Your task to perform on an android device: turn on priority inbox in the gmail app Image 0: 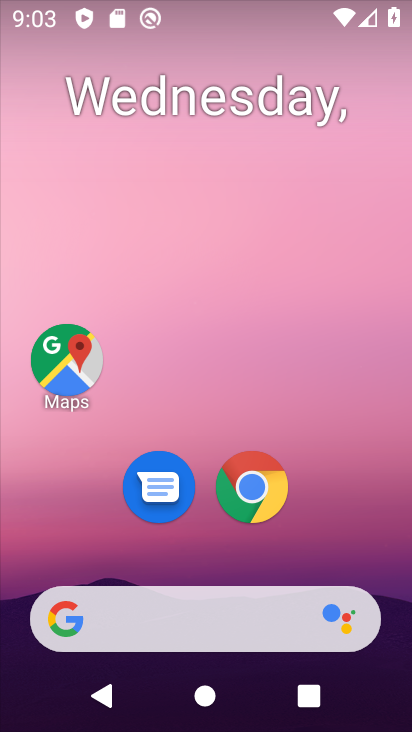
Step 0: drag from (259, 671) to (269, 19)
Your task to perform on an android device: turn on priority inbox in the gmail app Image 1: 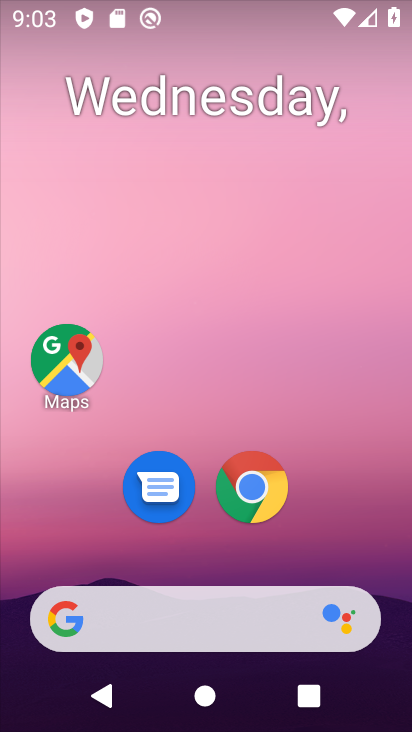
Step 1: drag from (267, 654) to (306, 0)
Your task to perform on an android device: turn on priority inbox in the gmail app Image 2: 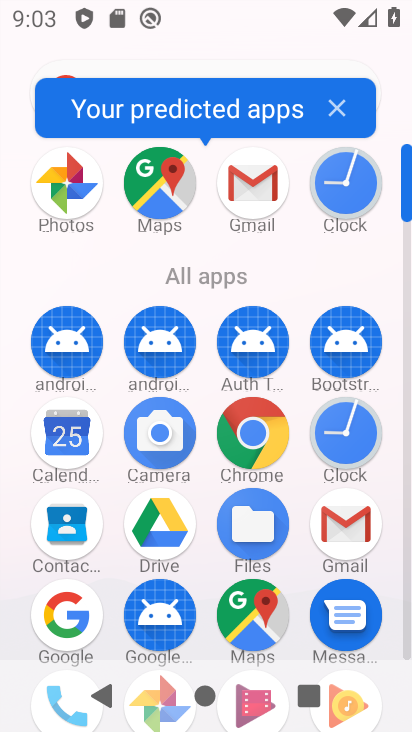
Step 2: click (358, 519)
Your task to perform on an android device: turn on priority inbox in the gmail app Image 3: 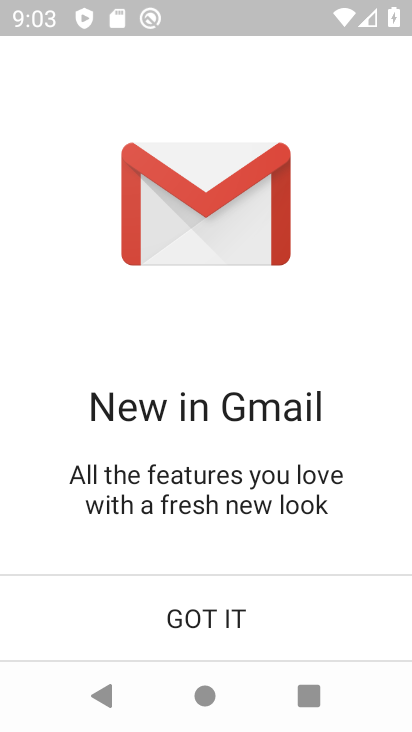
Step 3: click (292, 623)
Your task to perform on an android device: turn on priority inbox in the gmail app Image 4: 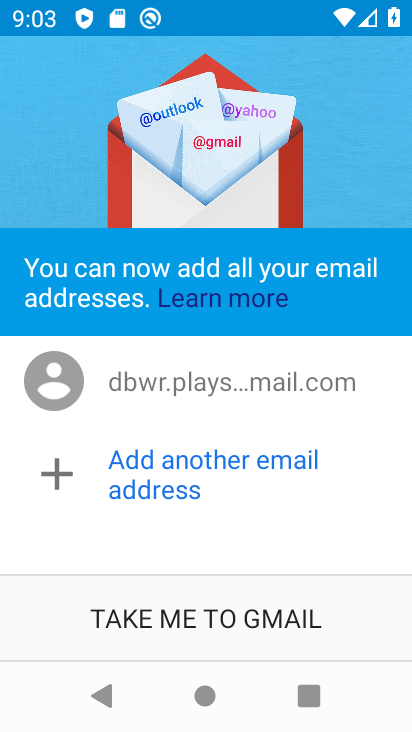
Step 4: click (292, 623)
Your task to perform on an android device: turn on priority inbox in the gmail app Image 5: 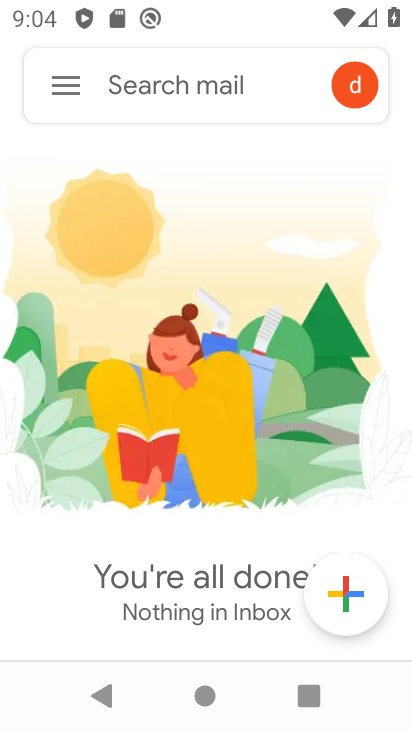
Step 5: click (53, 77)
Your task to perform on an android device: turn on priority inbox in the gmail app Image 6: 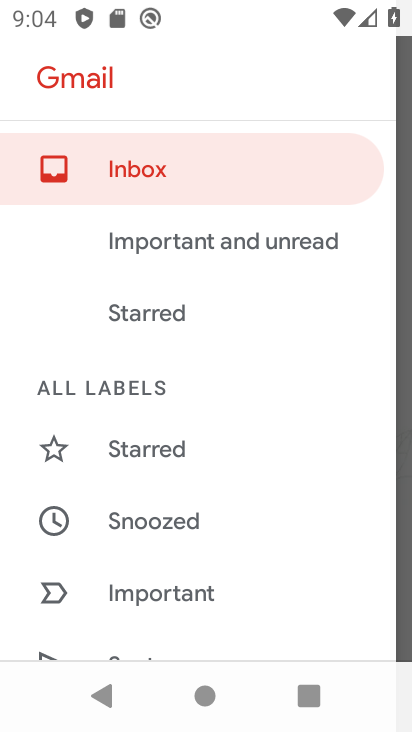
Step 6: drag from (295, 638) to (257, 109)
Your task to perform on an android device: turn on priority inbox in the gmail app Image 7: 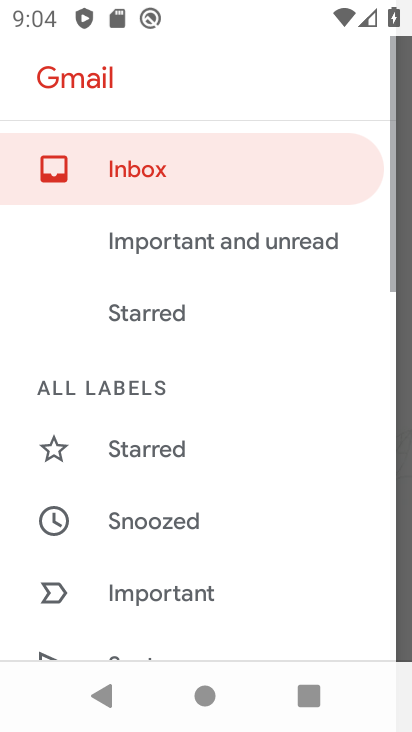
Step 7: drag from (263, 600) to (342, 32)
Your task to perform on an android device: turn on priority inbox in the gmail app Image 8: 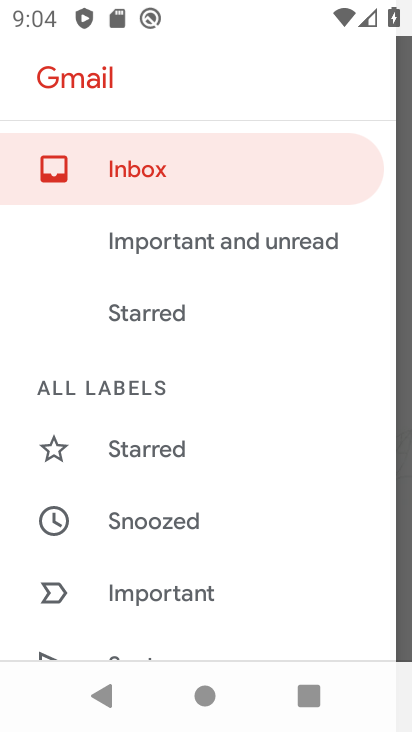
Step 8: drag from (296, 609) to (218, 10)
Your task to perform on an android device: turn on priority inbox in the gmail app Image 9: 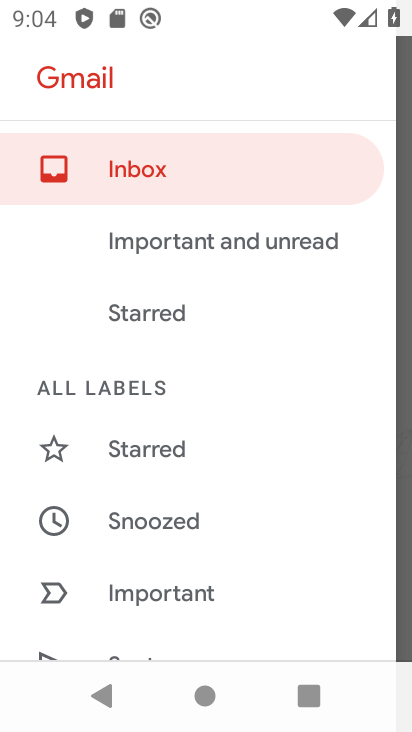
Step 9: drag from (243, 533) to (273, 17)
Your task to perform on an android device: turn on priority inbox in the gmail app Image 10: 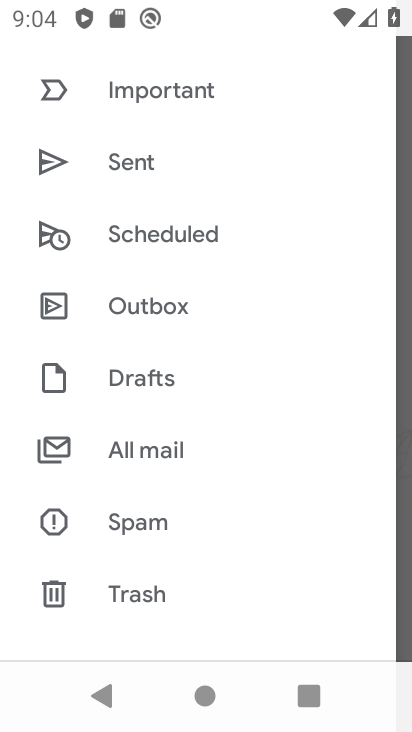
Step 10: drag from (246, 506) to (186, 34)
Your task to perform on an android device: turn on priority inbox in the gmail app Image 11: 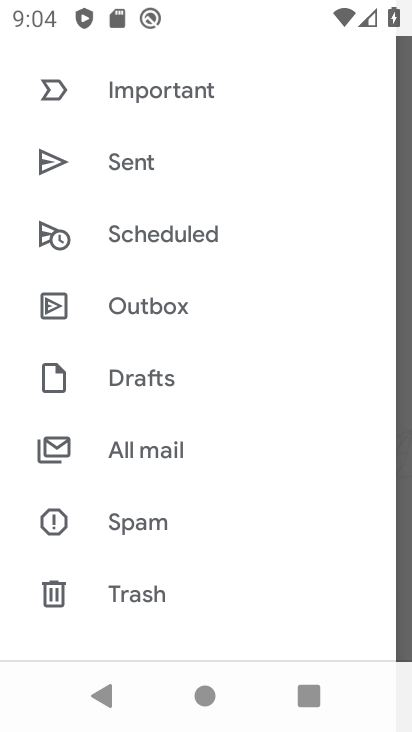
Step 11: drag from (110, 625) to (176, 43)
Your task to perform on an android device: turn on priority inbox in the gmail app Image 12: 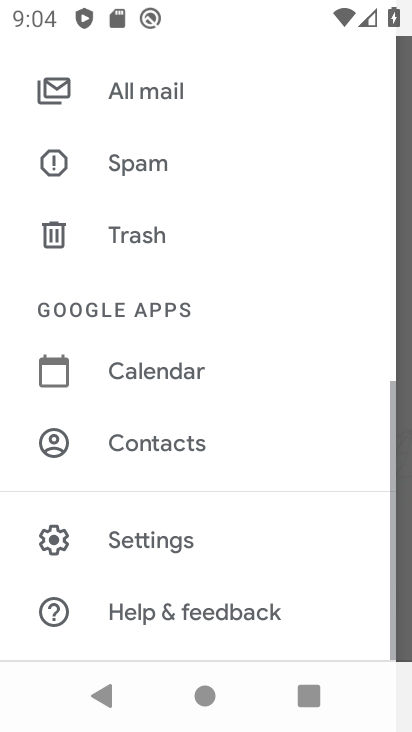
Step 12: click (194, 539)
Your task to perform on an android device: turn on priority inbox in the gmail app Image 13: 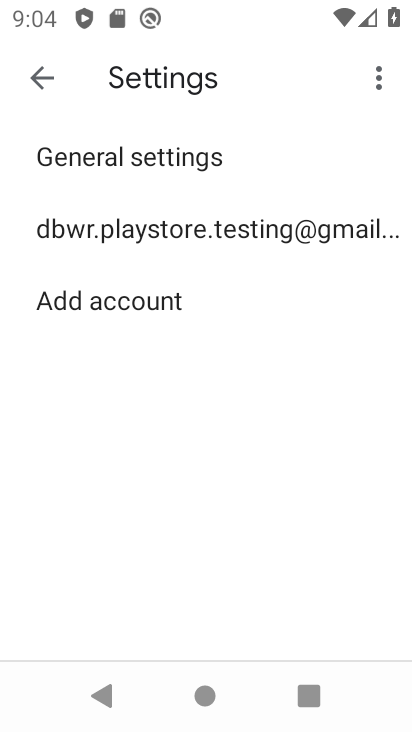
Step 13: click (277, 237)
Your task to perform on an android device: turn on priority inbox in the gmail app Image 14: 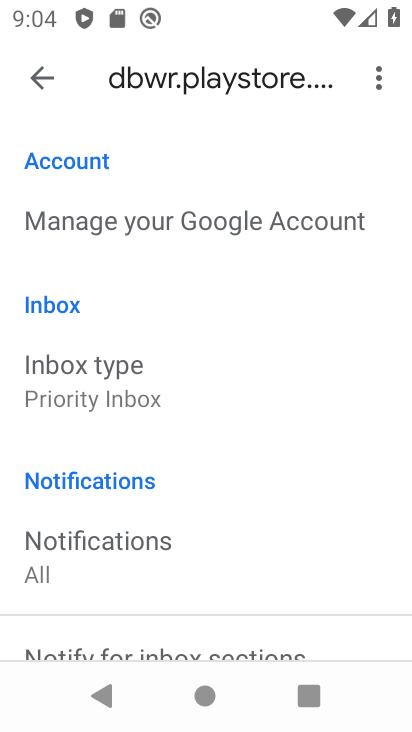
Step 14: task complete